Your task to perform on an android device: clear history in the chrome app Image 0: 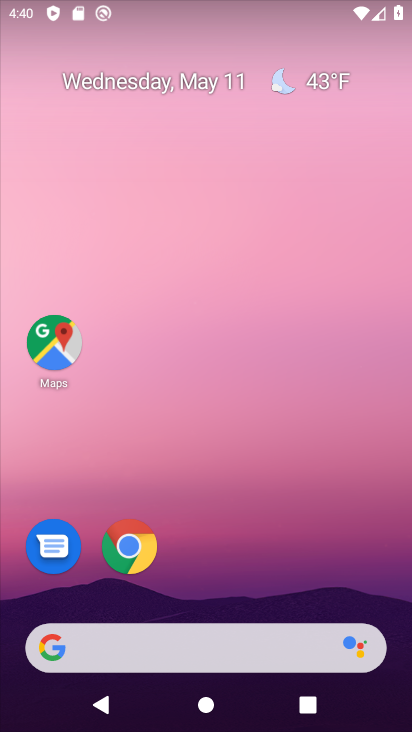
Step 0: press home button
Your task to perform on an android device: clear history in the chrome app Image 1: 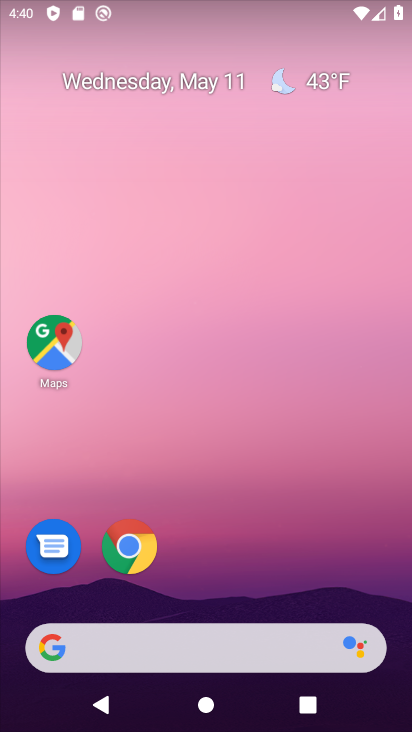
Step 1: click (130, 546)
Your task to perform on an android device: clear history in the chrome app Image 2: 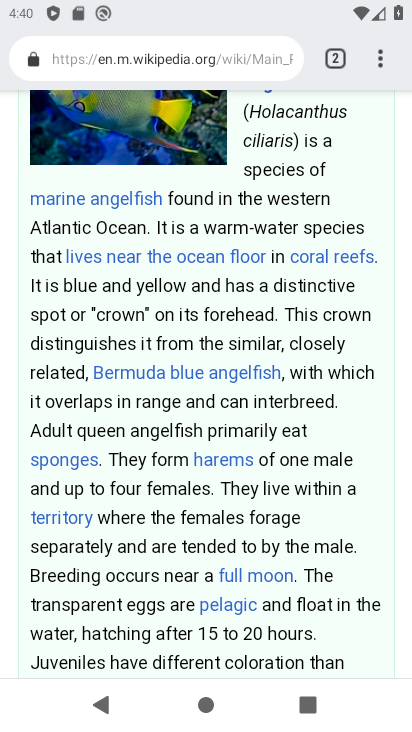
Step 2: click (382, 60)
Your task to perform on an android device: clear history in the chrome app Image 3: 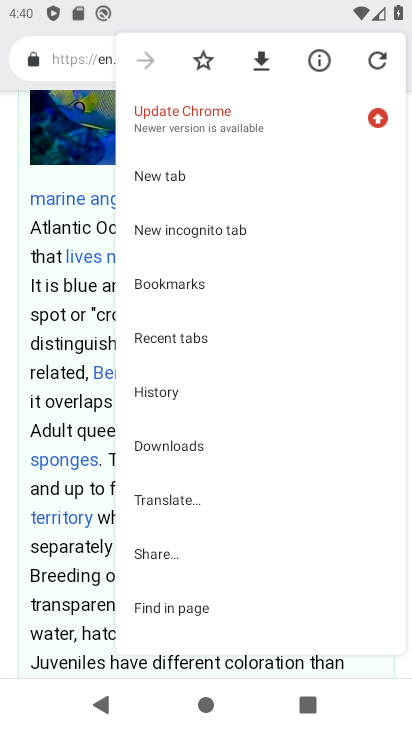
Step 3: click (197, 386)
Your task to perform on an android device: clear history in the chrome app Image 4: 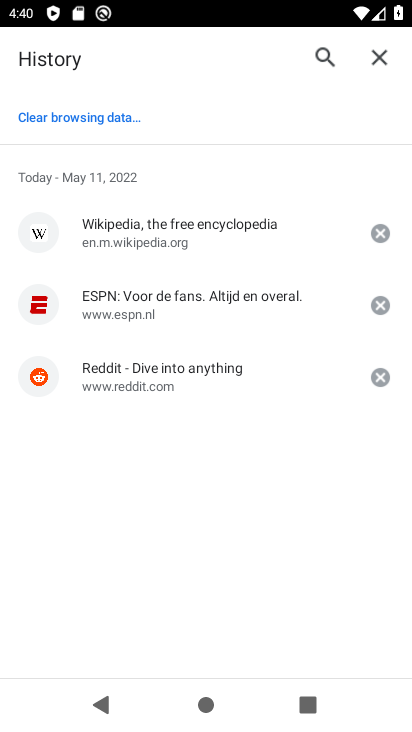
Step 4: click (131, 175)
Your task to perform on an android device: clear history in the chrome app Image 5: 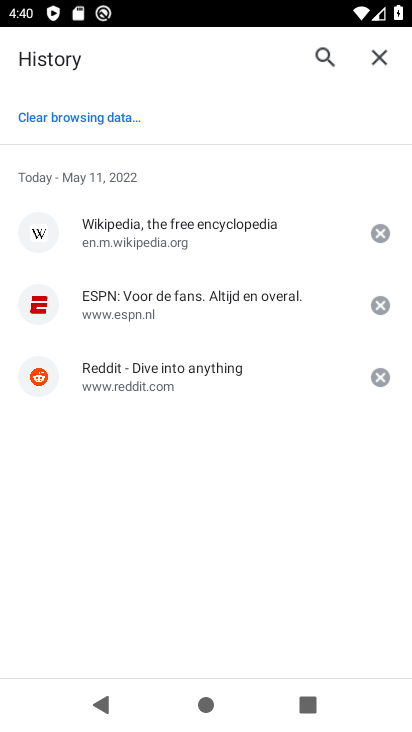
Step 5: click (74, 118)
Your task to perform on an android device: clear history in the chrome app Image 6: 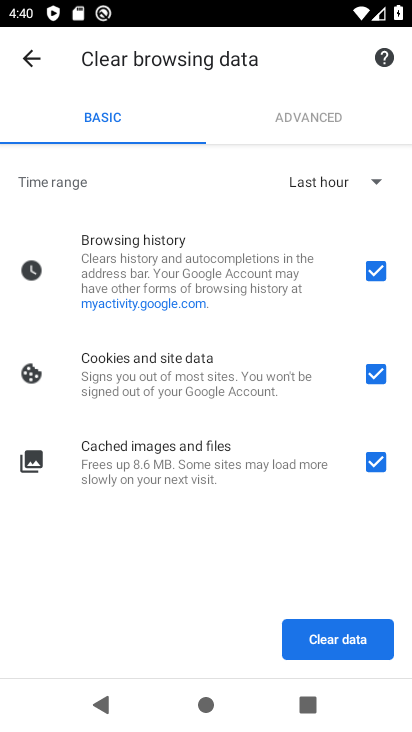
Step 6: click (343, 634)
Your task to perform on an android device: clear history in the chrome app Image 7: 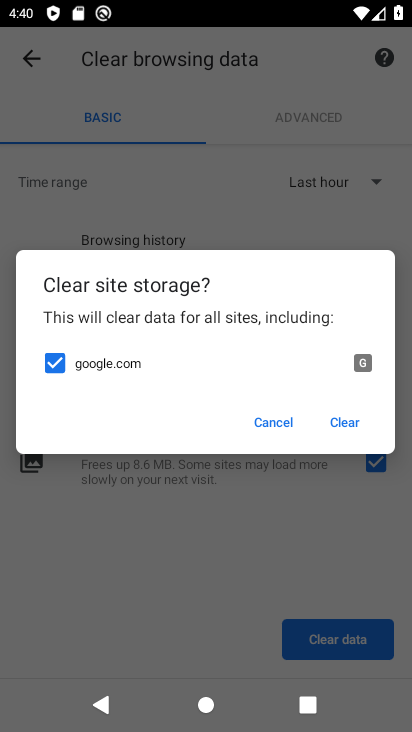
Step 7: click (332, 421)
Your task to perform on an android device: clear history in the chrome app Image 8: 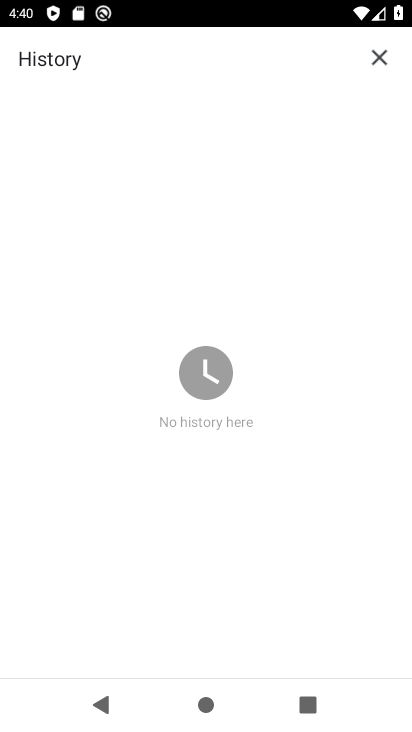
Step 8: task complete